Your task to perform on an android device: check google app version Image 0: 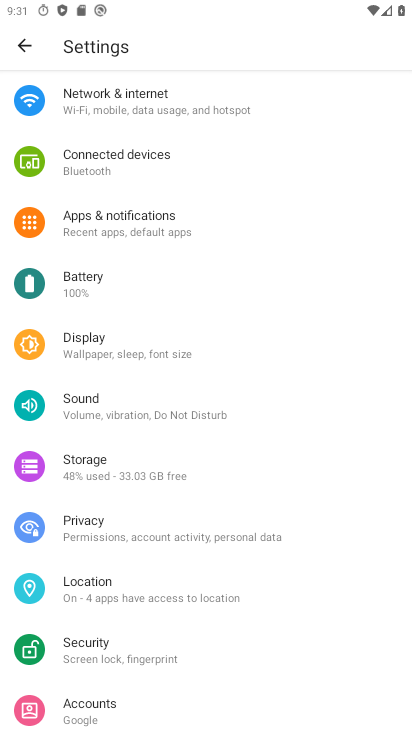
Step 0: press home button
Your task to perform on an android device: check google app version Image 1: 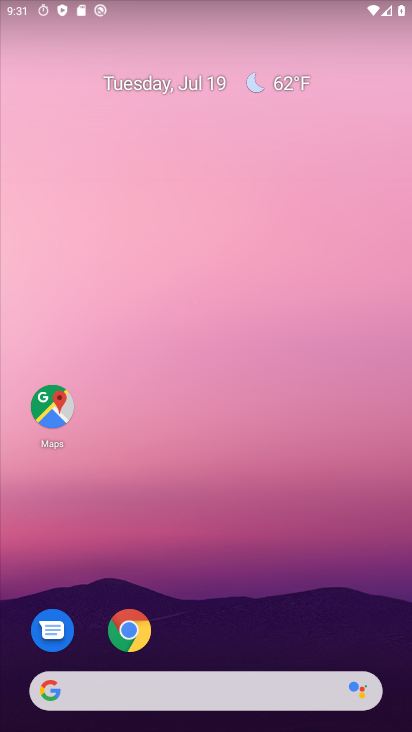
Step 1: drag from (158, 661) to (195, 205)
Your task to perform on an android device: check google app version Image 2: 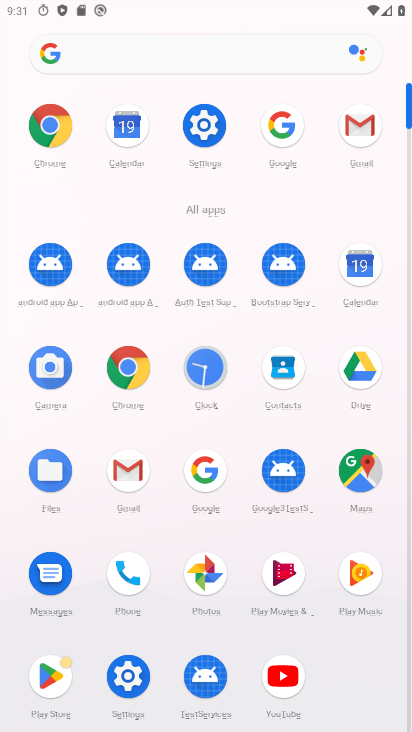
Step 2: click (202, 482)
Your task to perform on an android device: check google app version Image 3: 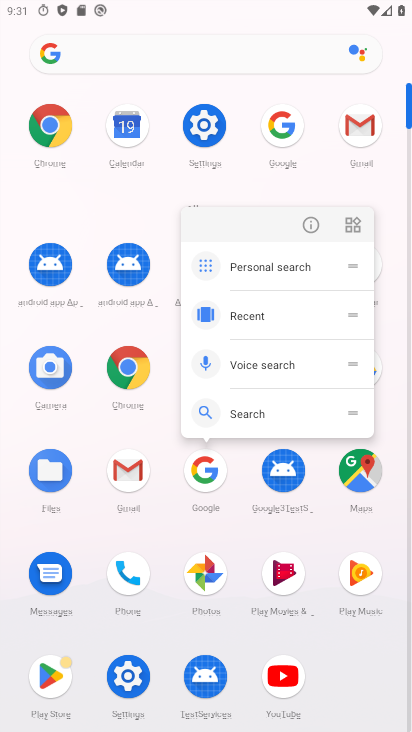
Step 3: click (312, 222)
Your task to perform on an android device: check google app version Image 4: 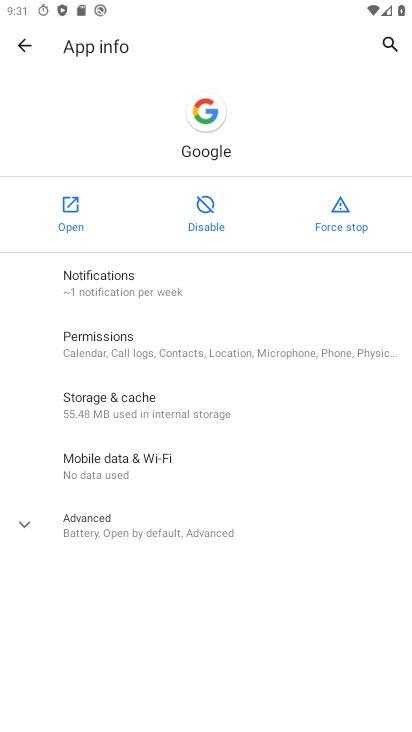
Step 4: click (94, 532)
Your task to perform on an android device: check google app version Image 5: 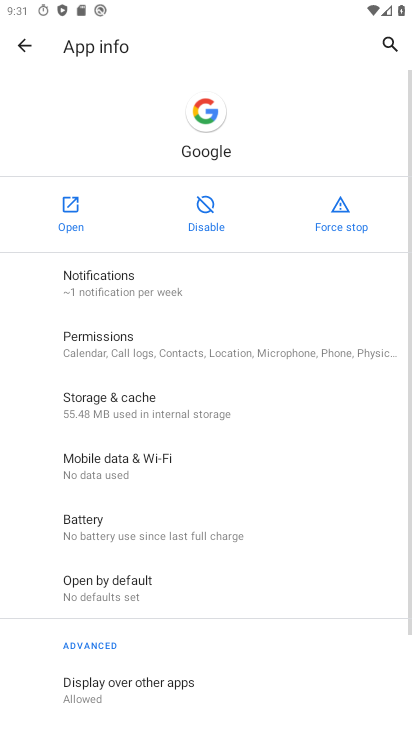
Step 5: task complete